Your task to perform on an android device: Open network settings Image 0: 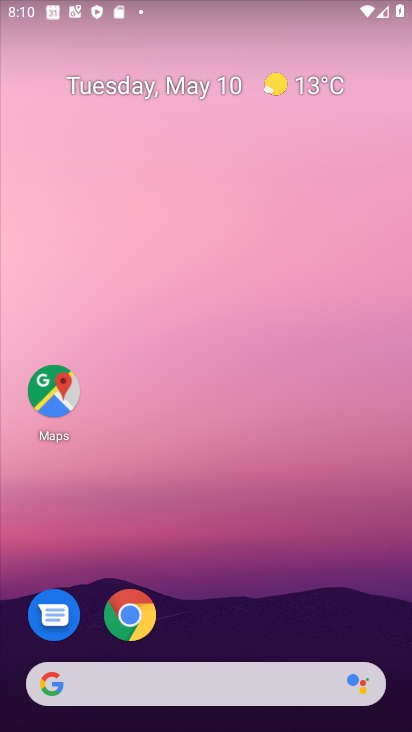
Step 0: drag from (263, 495) to (154, 84)
Your task to perform on an android device: Open network settings Image 1: 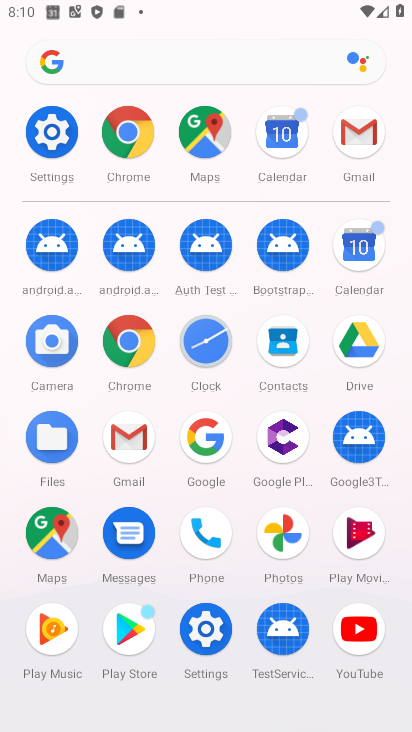
Step 1: click (47, 134)
Your task to perform on an android device: Open network settings Image 2: 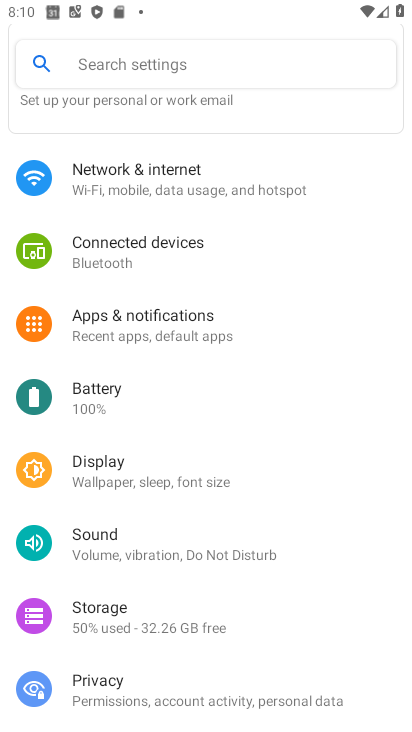
Step 2: click (140, 174)
Your task to perform on an android device: Open network settings Image 3: 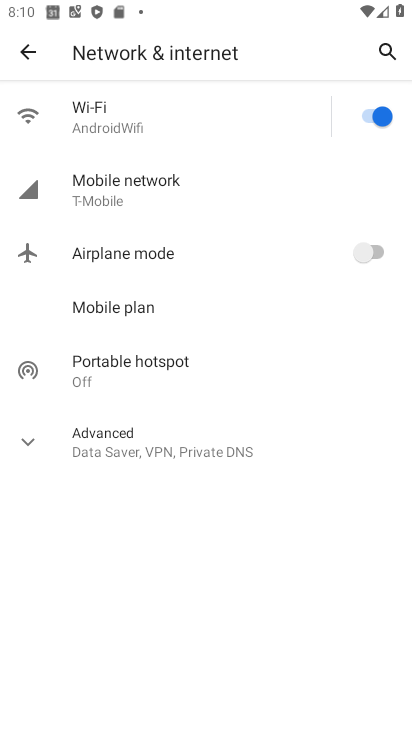
Step 3: task complete